Your task to perform on an android device: Go to eBay Image 0: 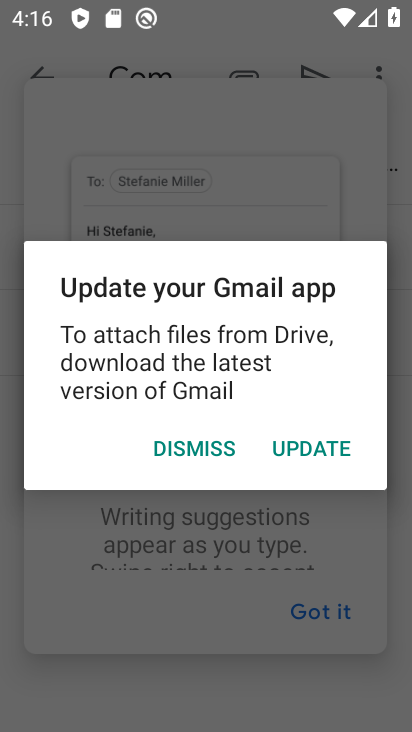
Step 0: press back button
Your task to perform on an android device: Go to eBay Image 1: 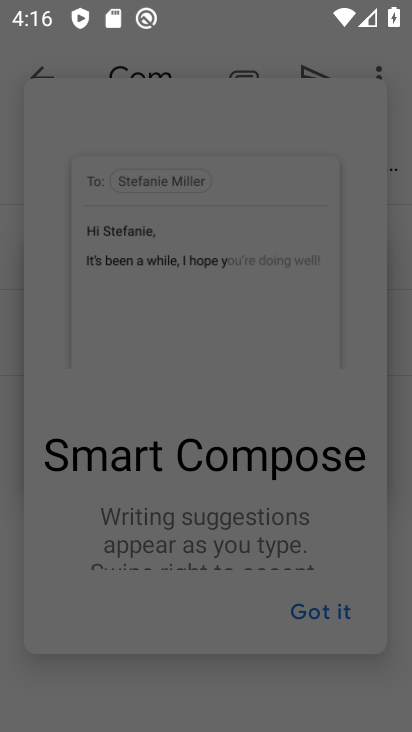
Step 1: press home button
Your task to perform on an android device: Go to eBay Image 2: 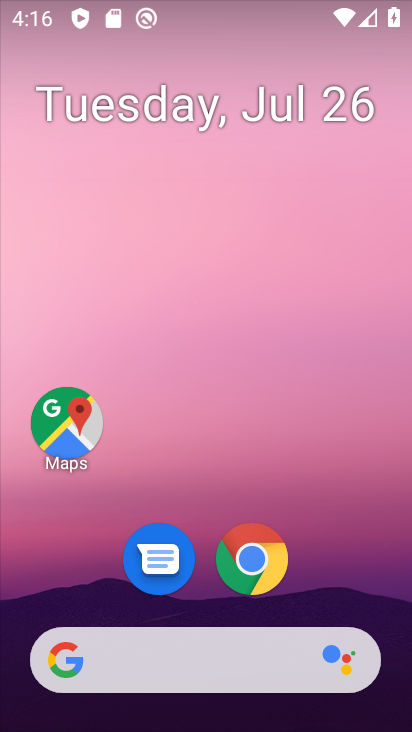
Step 2: click (258, 578)
Your task to perform on an android device: Go to eBay Image 3: 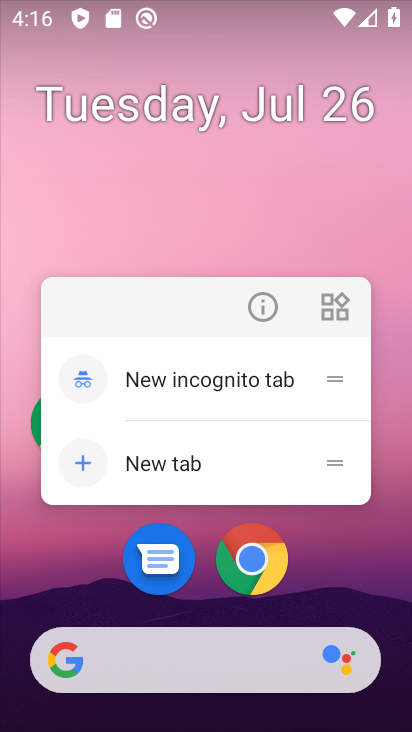
Step 3: click (245, 559)
Your task to perform on an android device: Go to eBay Image 4: 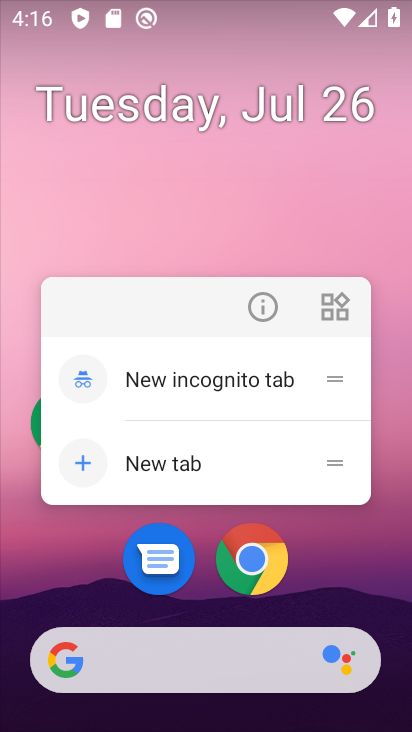
Step 4: click (252, 561)
Your task to perform on an android device: Go to eBay Image 5: 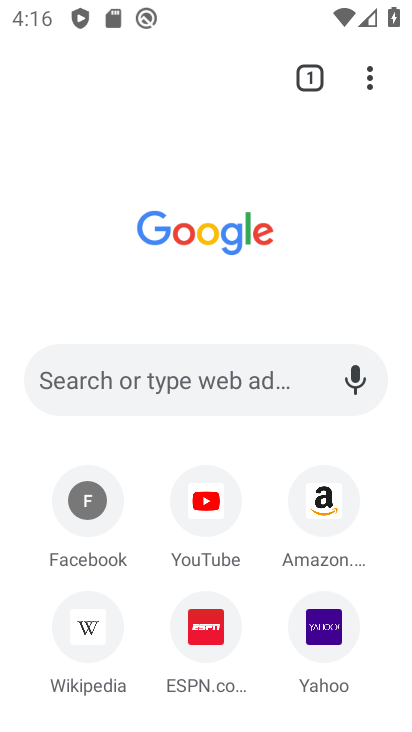
Step 5: click (146, 374)
Your task to perform on an android device: Go to eBay Image 6: 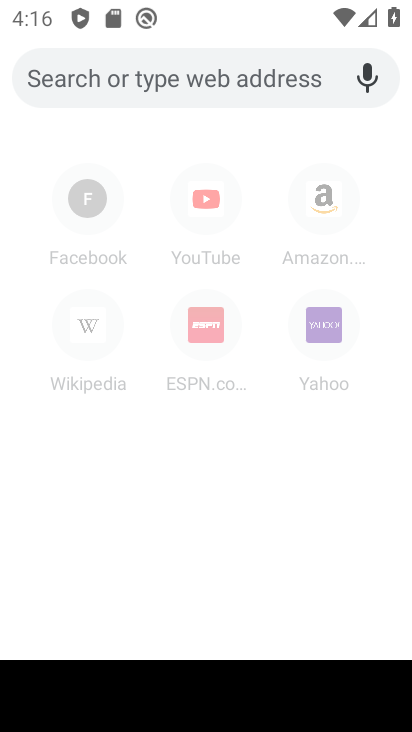
Step 6: type "ebay"
Your task to perform on an android device: Go to eBay Image 7: 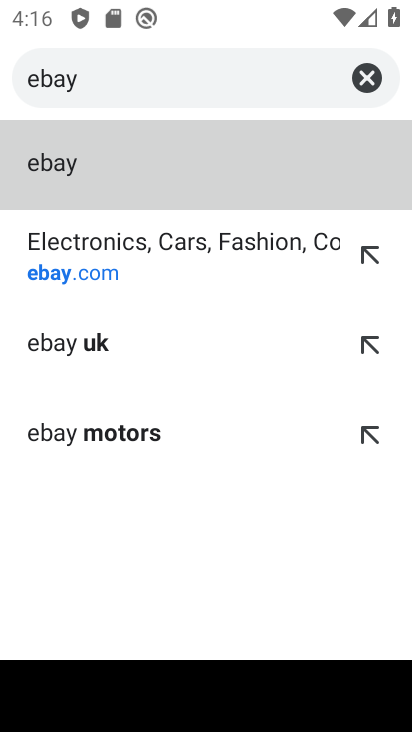
Step 7: click (106, 269)
Your task to perform on an android device: Go to eBay Image 8: 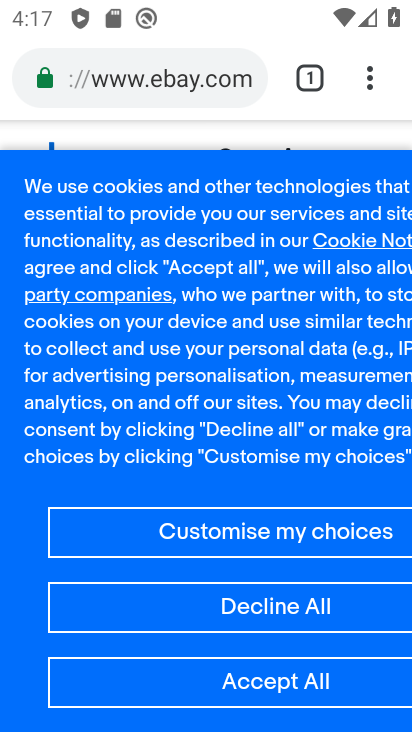
Step 8: task complete